Your task to perform on an android device: turn notification dots off Image 0: 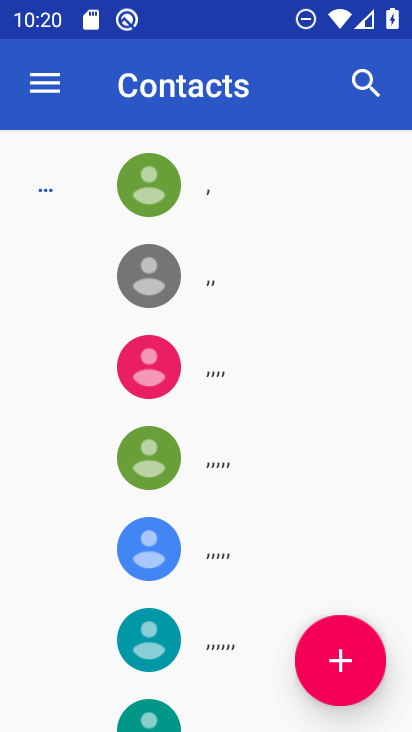
Step 0: press home button
Your task to perform on an android device: turn notification dots off Image 1: 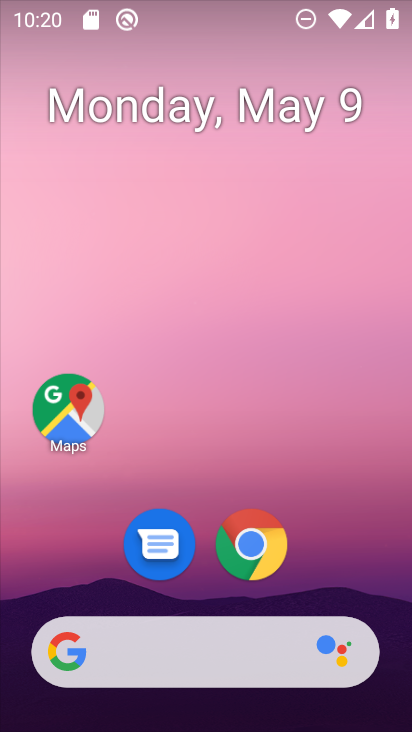
Step 1: drag from (331, 561) to (196, 46)
Your task to perform on an android device: turn notification dots off Image 2: 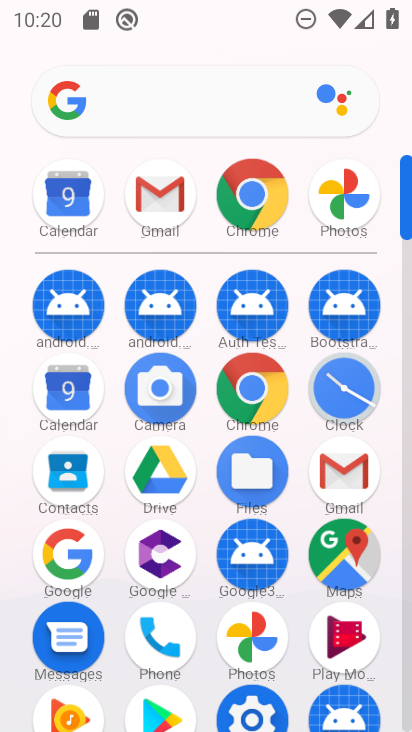
Step 2: click (261, 702)
Your task to perform on an android device: turn notification dots off Image 3: 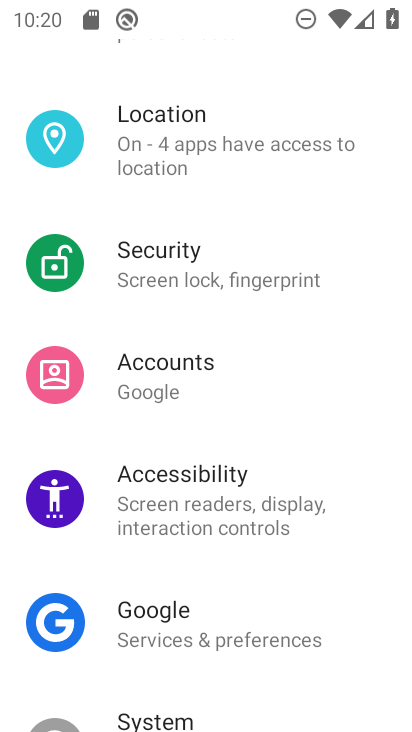
Step 3: drag from (261, 318) to (197, 725)
Your task to perform on an android device: turn notification dots off Image 4: 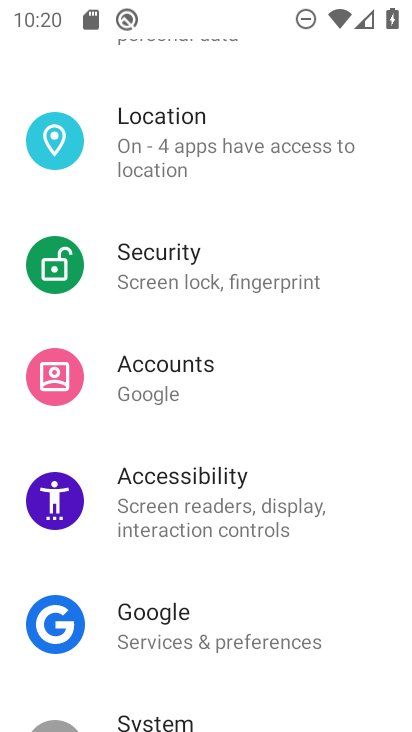
Step 4: drag from (185, 213) to (184, 474)
Your task to perform on an android device: turn notification dots off Image 5: 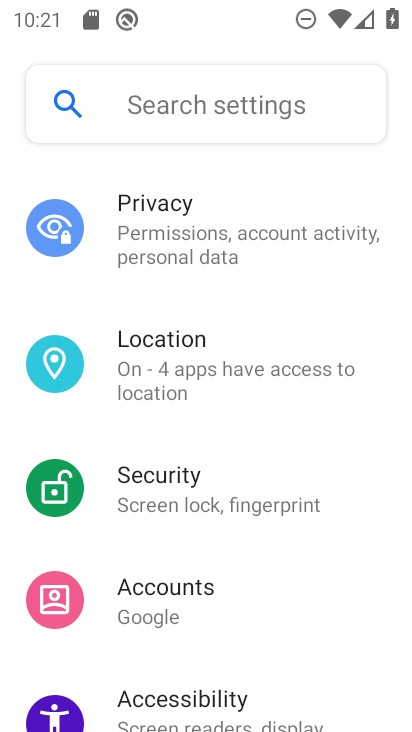
Step 5: drag from (171, 143) to (148, 458)
Your task to perform on an android device: turn notification dots off Image 6: 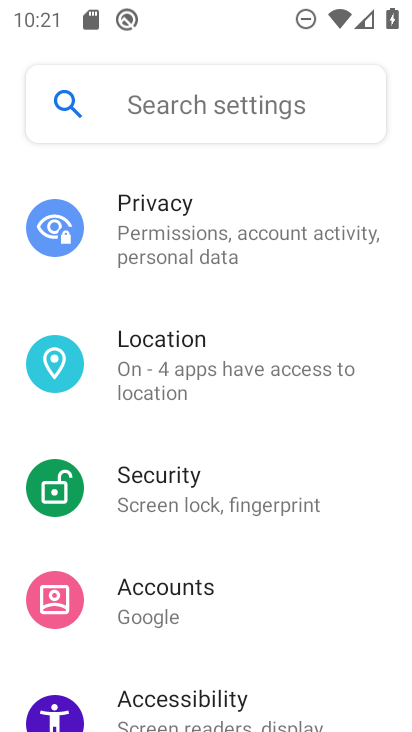
Step 6: drag from (222, 293) to (213, 635)
Your task to perform on an android device: turn notification dots off Image 7: 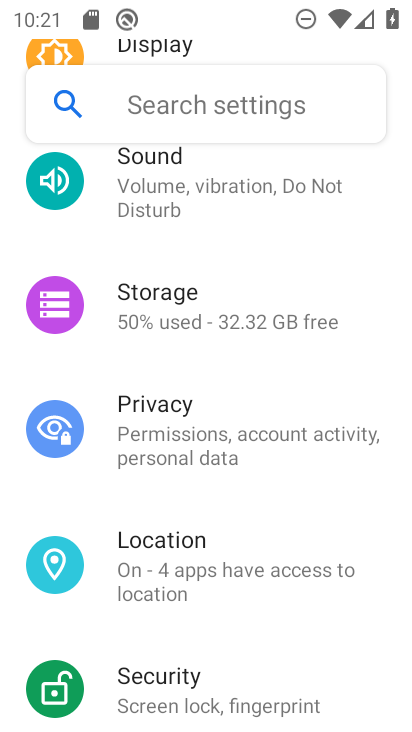
Step 7: drag from (229, 266) to (217, 698)
Your task to perform on an android device: turn notification dots off Image 8: 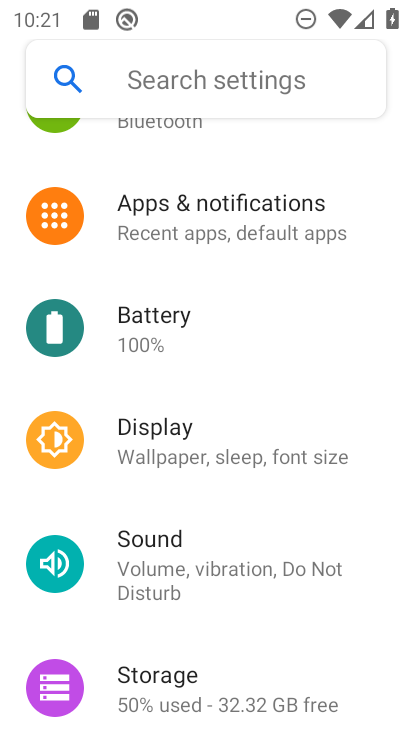
Step 8: click (207, 199)
Your task to perform on an android device: turn notification dots off Image 9: 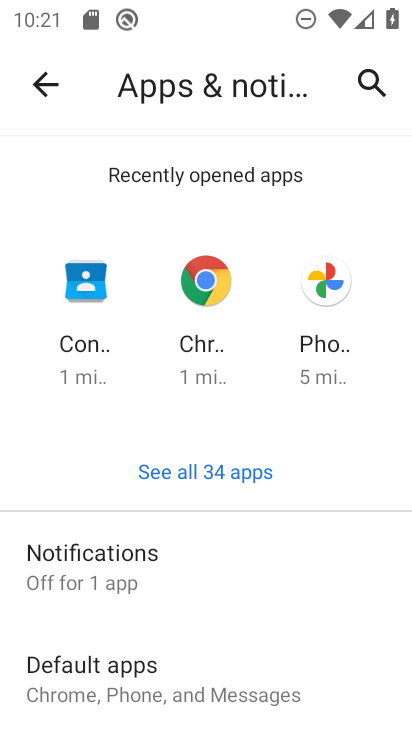
Step 9: click (95, 550)
Your task to perform on an android device: turn notification dots off Image 10: 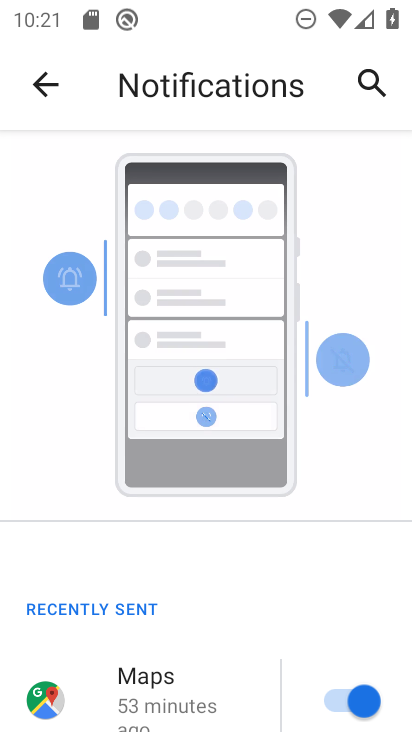
Step 10: drag from (224, 612) to (196, 156)
Your task to perform on an android device: turn notification dots off Image 11: 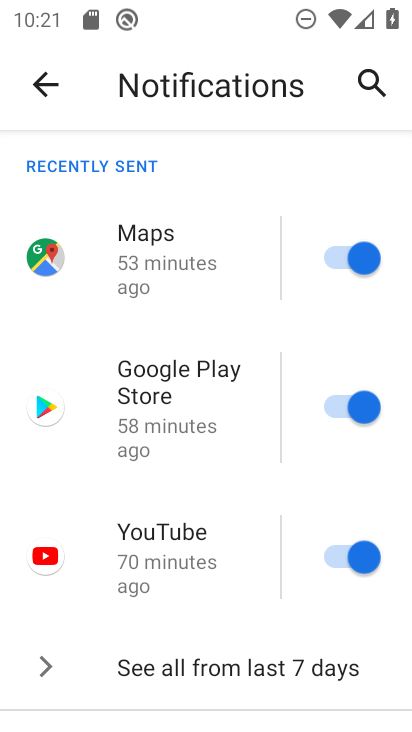
Step 11: drag from (229, 619) to (185, 125)
Your task to perform on an android device: turn notification dots off Image 12: 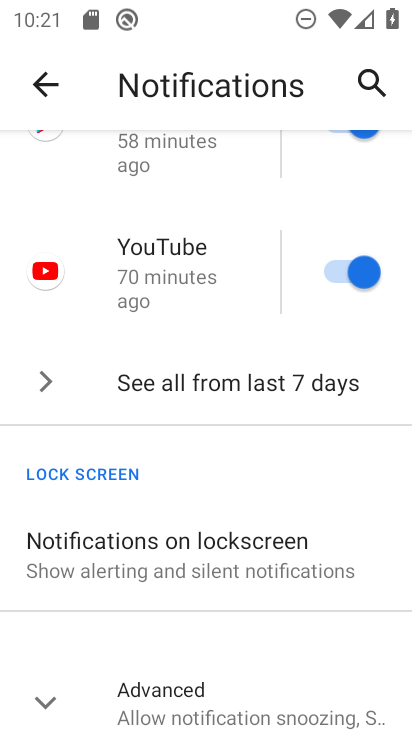
Step 12: drag from (156, 639) to (150, 189)
Your task to perform on an android device: turn notification dots off Image 13: 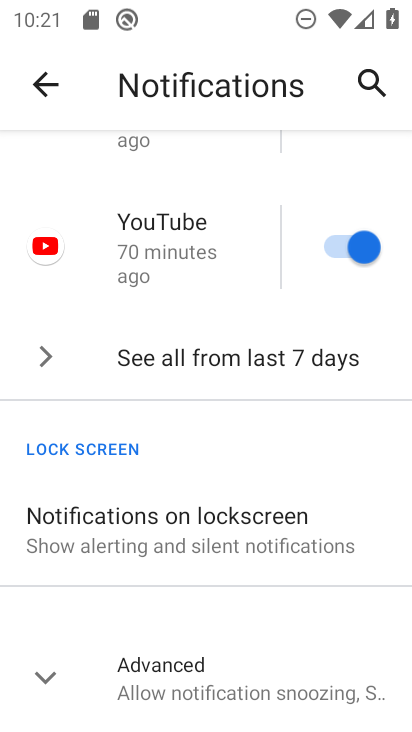
Step 13: click (47, 677)
Your task to perform on an android device: turn notification dots off Image 14: 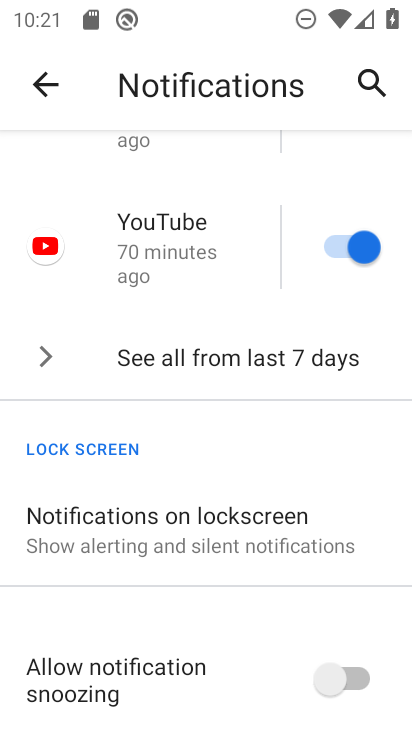
Step 14: task complete